Your task to perform on an android device: Open the calendar and show me this week's events? Image 0: 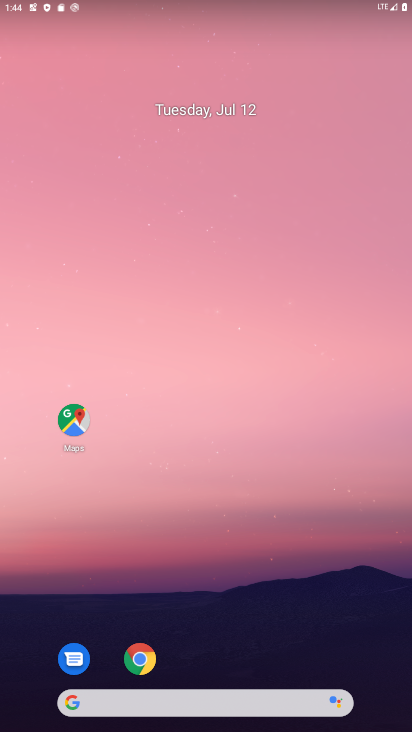
Step 0: drag from (192, 729) to (183, 142)
Your task to perform on an android device: Open the calendar and show me this week's events? Image 1: 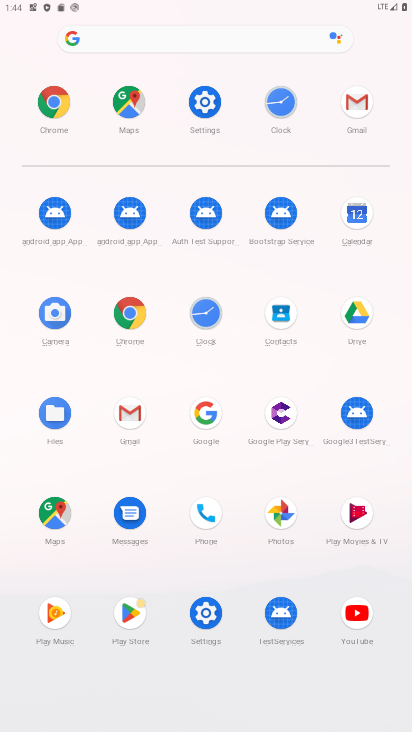
Step 1: click (360, 209)
Your task to perform on an android device: Open the calendar and show me this week's events? Image 2: 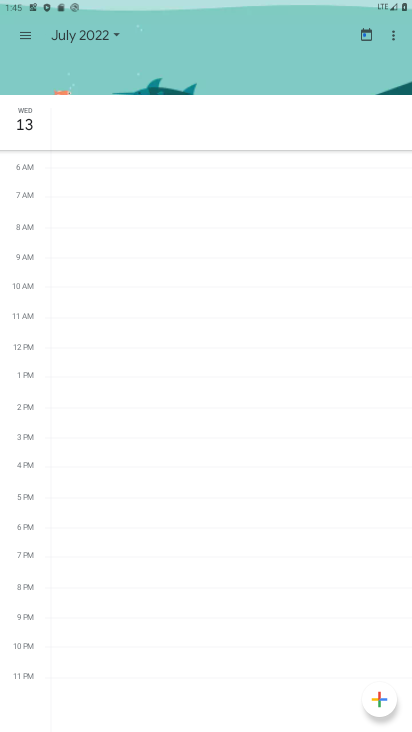
Step 2: click (111, 33)
Your task to perform on an android device: Open the calendar and show me this week's events? Image 3: 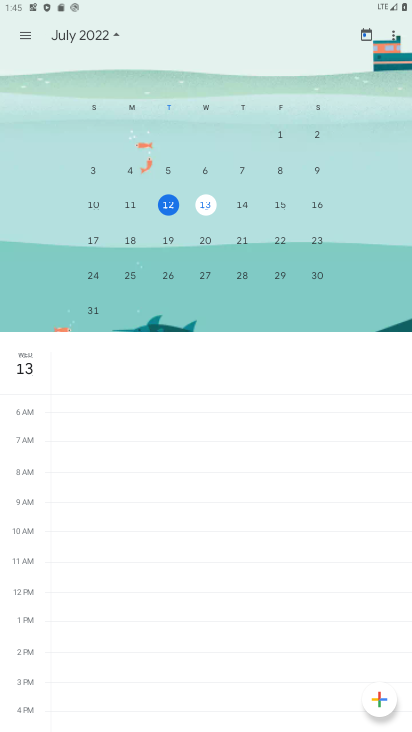
Step 3: click (24, 30)
Your task to perform on an android device: Open the calendar and show me this week's events? Image 4: 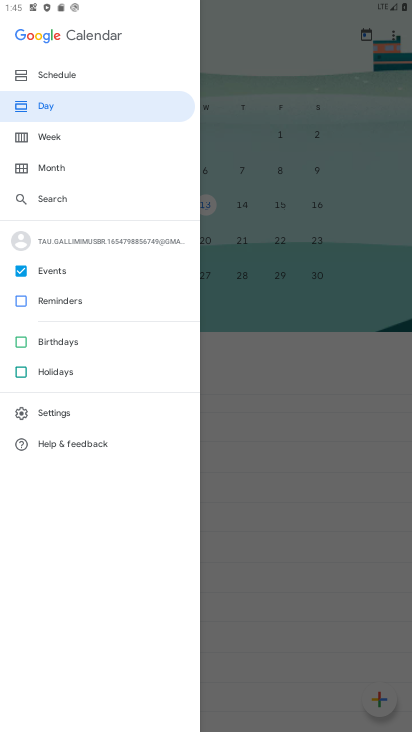
Step 4: click (49, 134)
Your task to perform on an android device: Open the calendar and show me this week's events? Image 5: 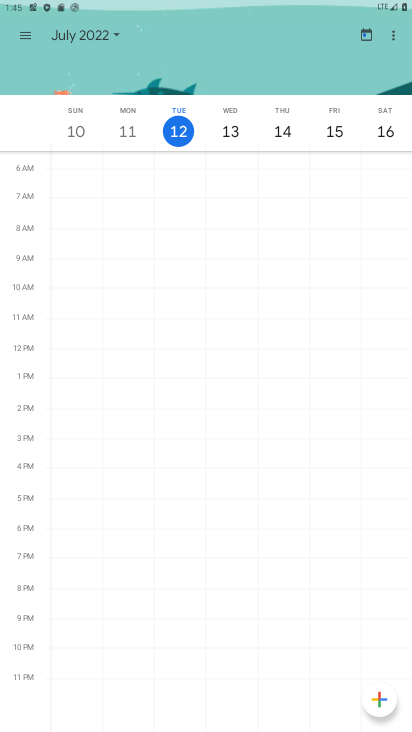
Step 5: task complete